Your task to perform on an android device: Search for sushi restaurants on Maps Image 0: 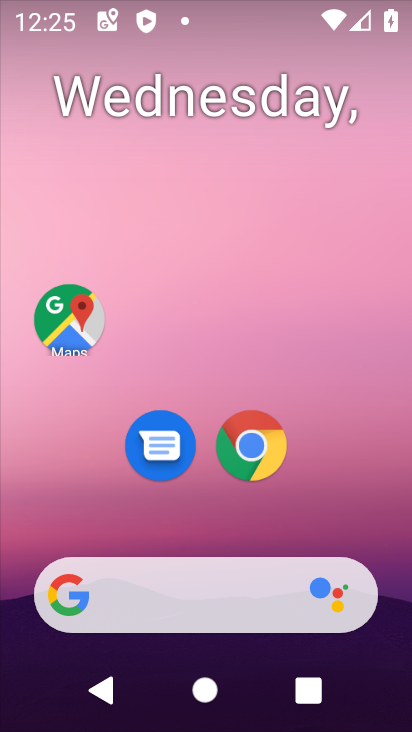
Step 0: drag from (361, 536) to (296, 203)
Your task to perform on an android device: Search for sushi restaurants on Maps Image 1: 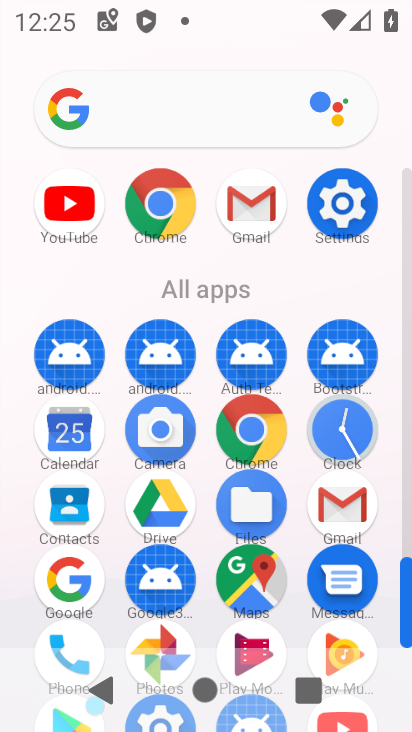
Step 1: click (239, 575)
Your task to perform on an android device: Search for sushi restaurants on Maps Image 2: 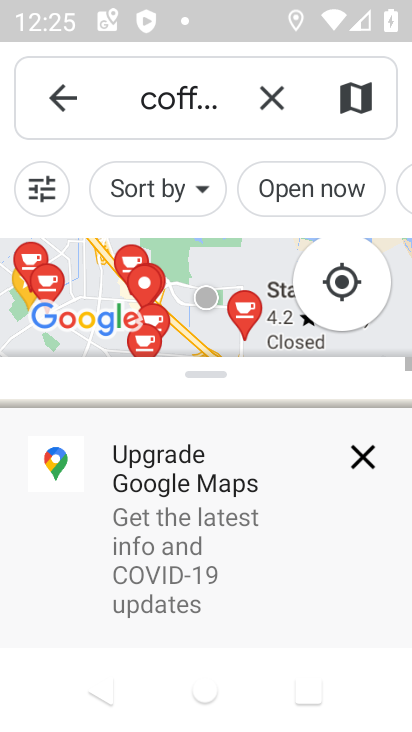
Step 2: click (191, 96)
Your task to perform on an android device: Search for sushi restaurants on Maps Image 3: 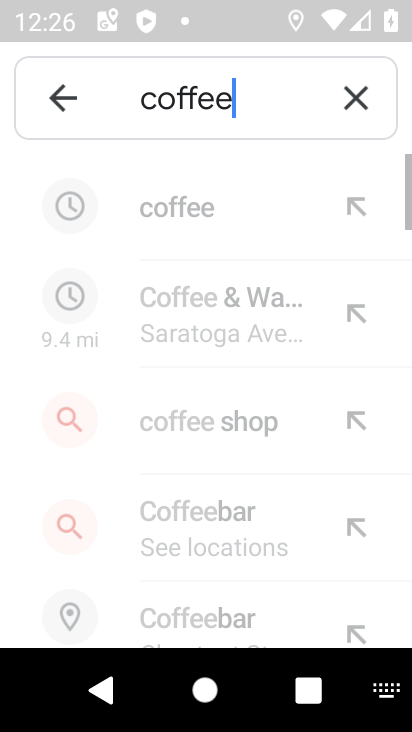
Step 3: click (351, 83)
Your task to perform on an android device: Search for sushi restaurants on Maps Image 4: 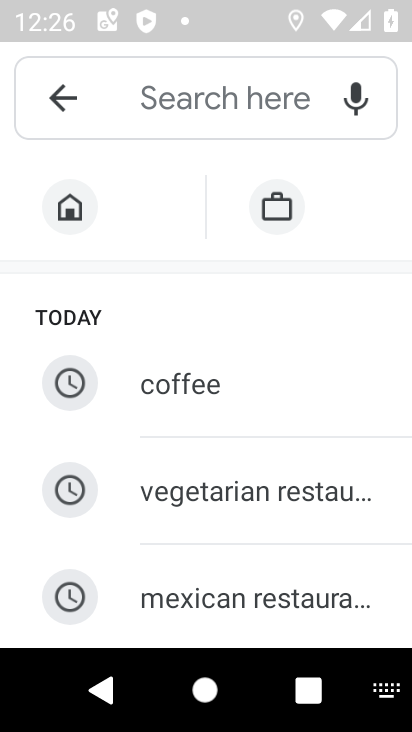
Step 4: type "sushi restaurants"
Your task to perform on an android device: Search for sushi restaurants on Maps Image 5: 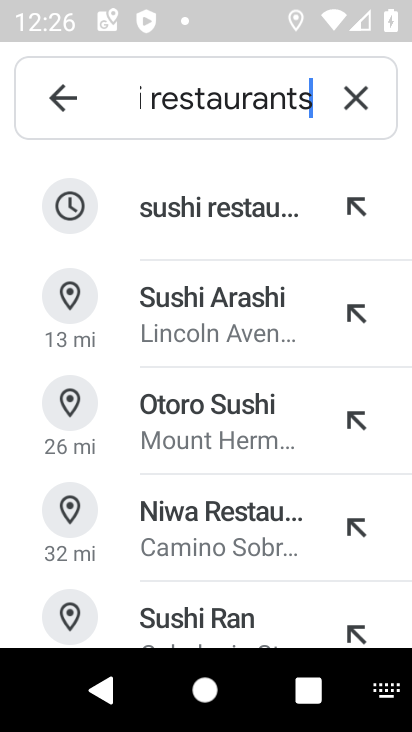
Step 5: press enter
Your task to perform on an android device: Search for sushi restaurants on Maps Image 6: 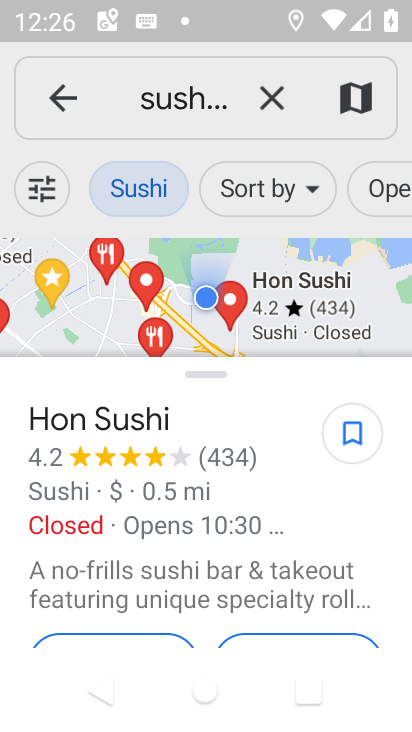
Step 6: task complete